Your task to perform on an android device: choose inbox layout in the gmail app Image 0: 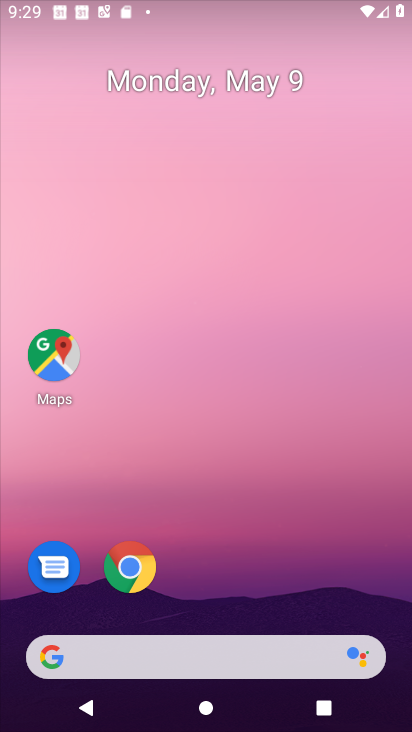
Step 0: drag from (199, 633) to (230, 127)
Your task to perform on an android device: choose inbox layout in the gmail app Image 1: 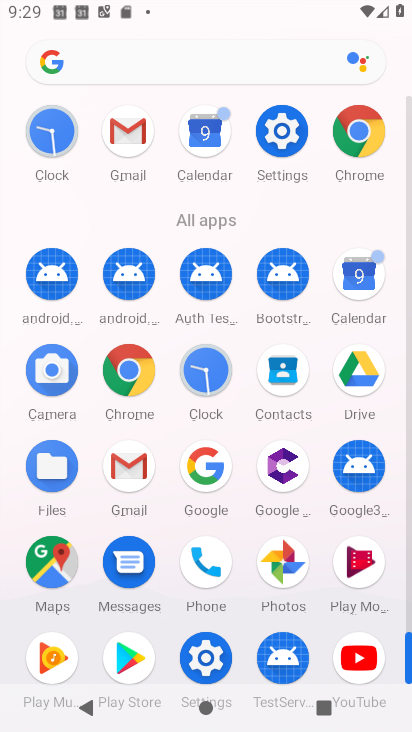
Step 1: click (119, 472)
Your task to perform on an android device: choose inbox layout in the gmail app Image 2: 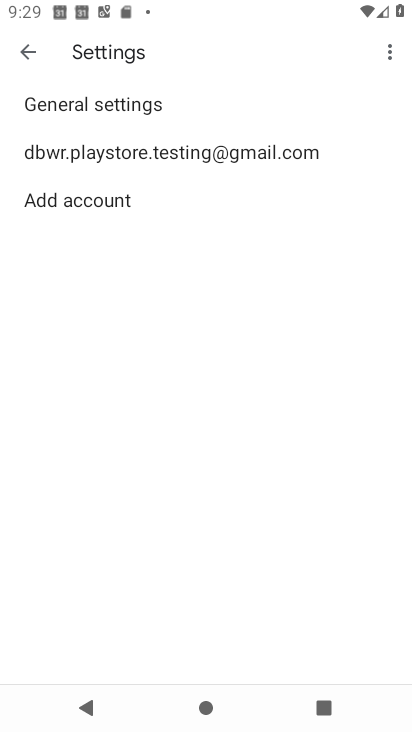
Step 2: click (122, 153)
Your task to perform on an android device: choose inbox layout in the gmail app Image 3: 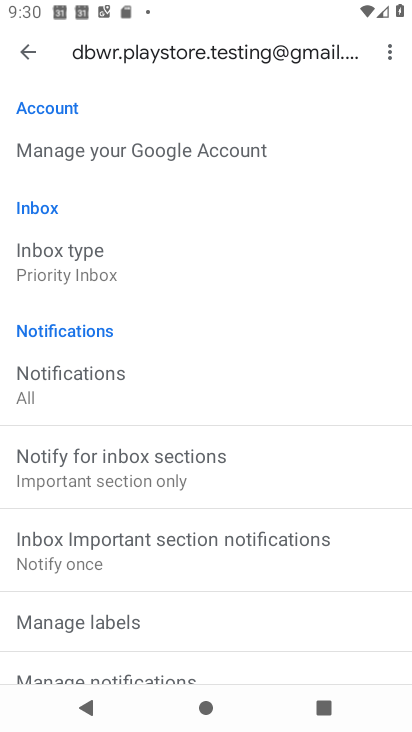
Step 3: click (19, 39)
Your task to perform on an android device: choose inbox layout in the gmail app Image 4: 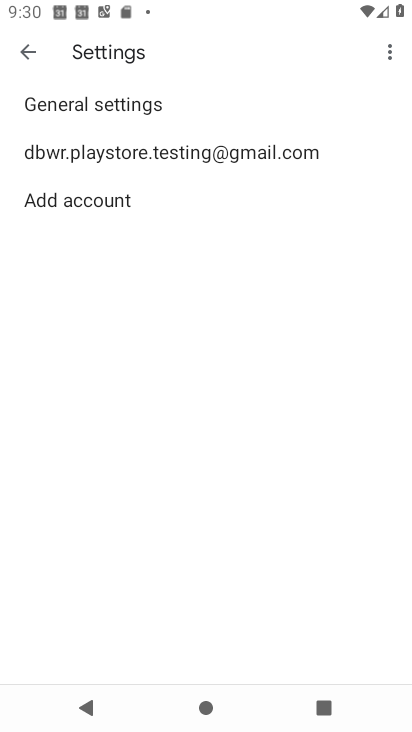
Step 4: click (19, 39)
Your task to perform on an android device: choose inbox layout in the gmail app Image 5: 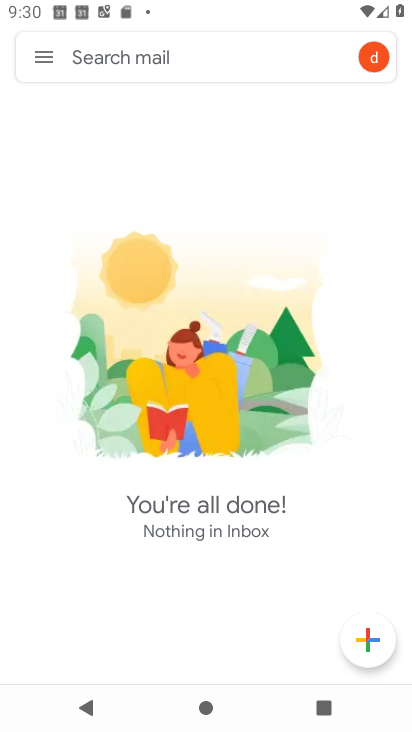
Step 5: click (47, 57)
Your task to perform on an android device: choose inbox layout in the gmail app Image 6: 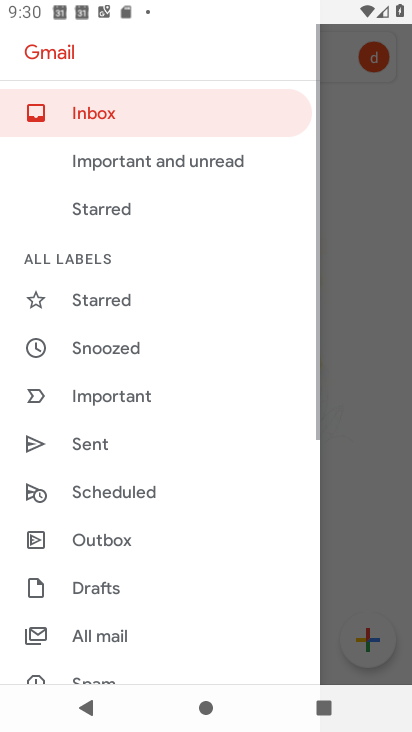
Step 6: click (60, 116)
Your task to perform on an android device: choose inbox layout in the gmail app Image 7: 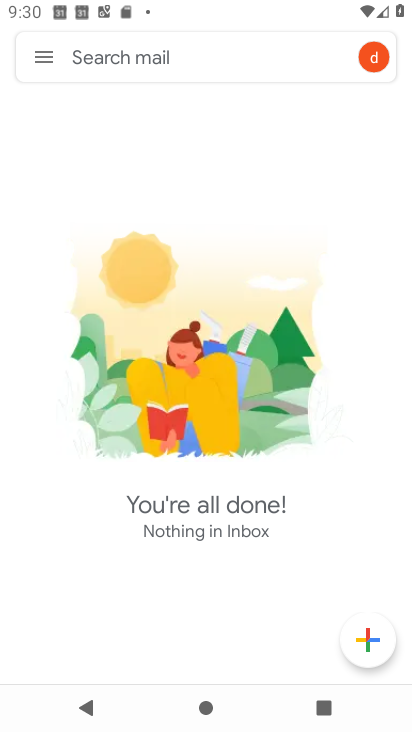
Step 7: task complete